Your task to perform on an android device: Open the calendar and show me this week's events? Image 0: 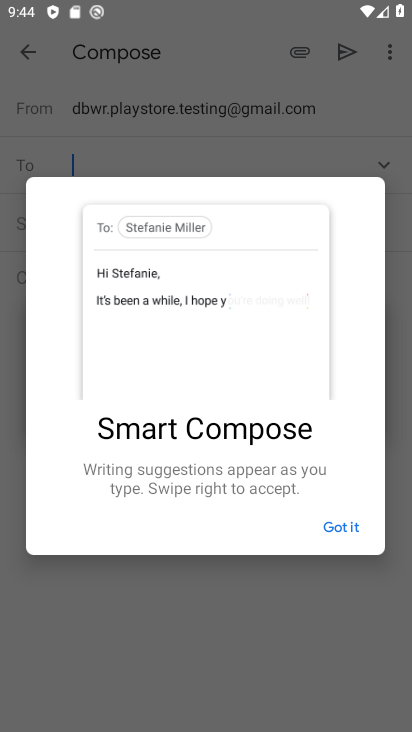
Step 0: press home button
Your task to perform on an android device: Open the calendar and show me this week's events? Image 1: 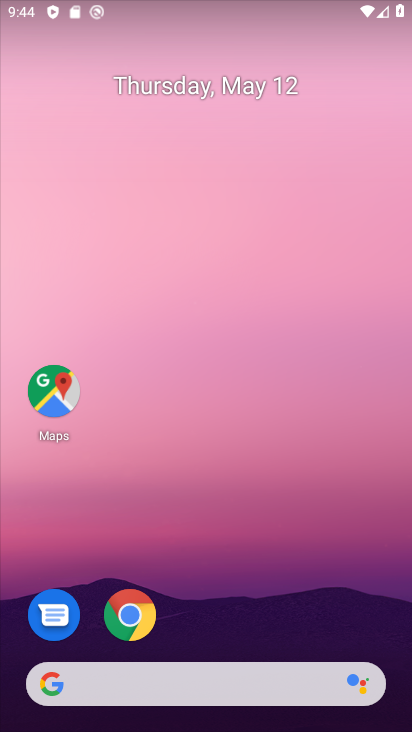
Step 1: drag from (223, 730) to (198, 72)
Your task to perform on an android device: Open the calendar and show me this week's events? Image 2: 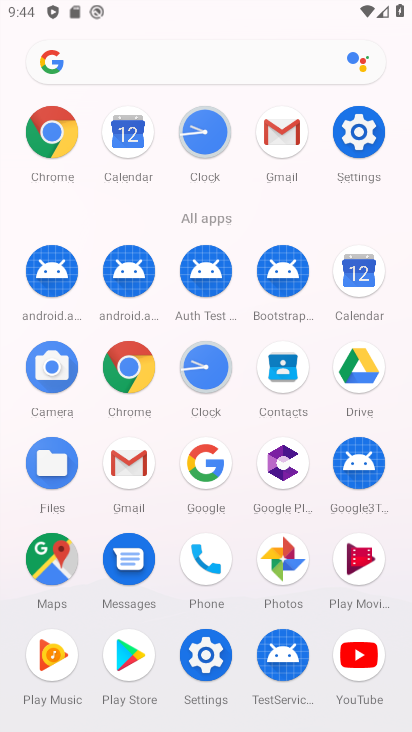
Step 2: click (363, 278)
Your task to perform on an android device: Open the calendar and show me this week's events? Image 3: 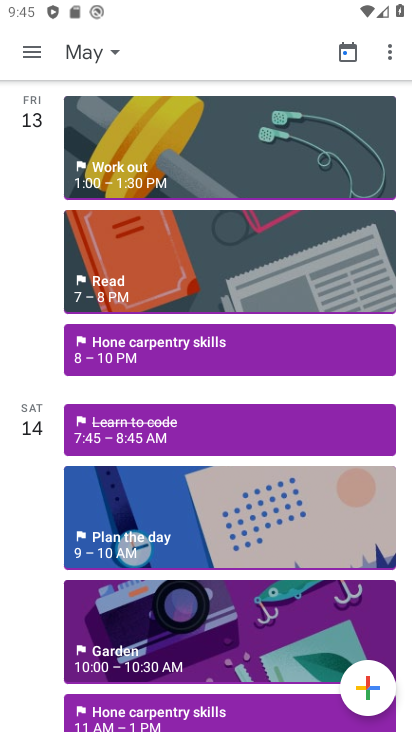
Step 3: click (34, 51)
Your task to perform on an android device: Open the calendar and show me this week's events? Image 4: 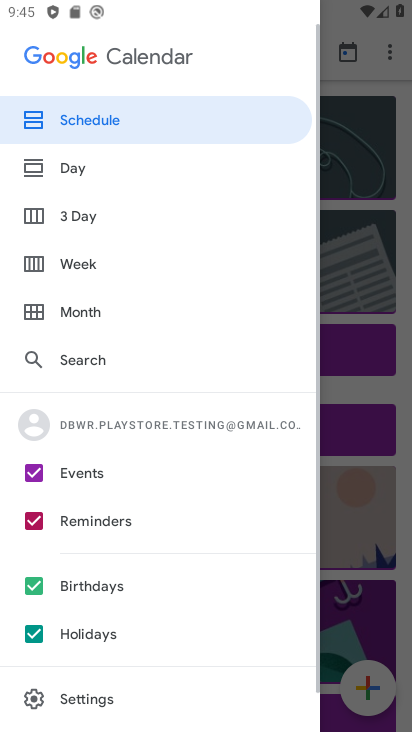
Step 4: click (31, 631)
Your task to perform on an android device: Open the calendar and show me this week's events? Image 5: 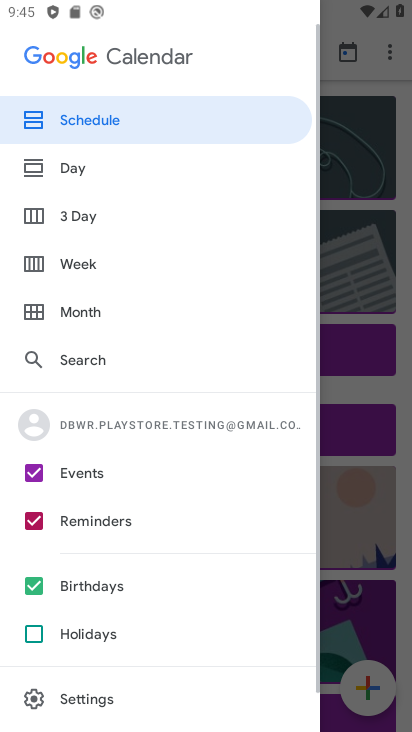
Step 5: click (34, 586)
Your task to perform on an android device: Open the calendar and show me this week's events? Image 6: 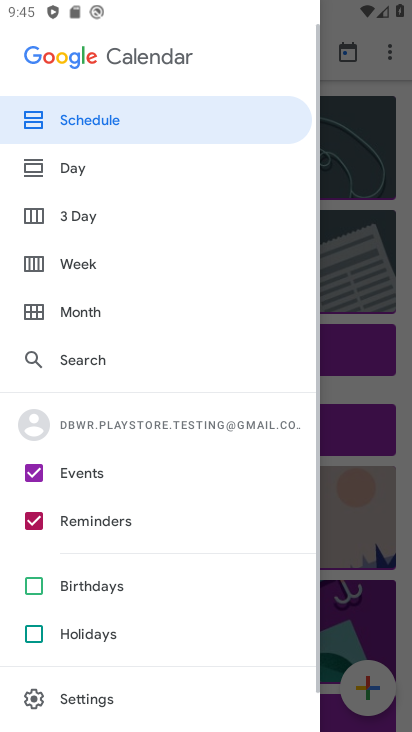
Step 6: click (26, 514)
Your task to perform on an android device: Open the calendar and show me this week's events? Image 7: 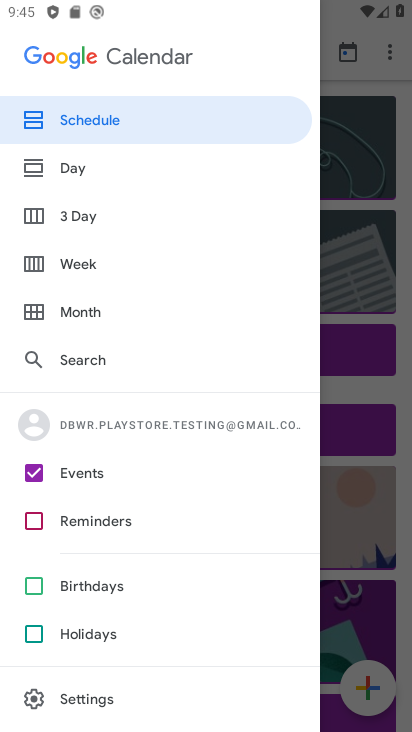
Step 7: click (88, 263)
Your task to perform on an android device: Open the calendar and show me this week's events? Image 8: 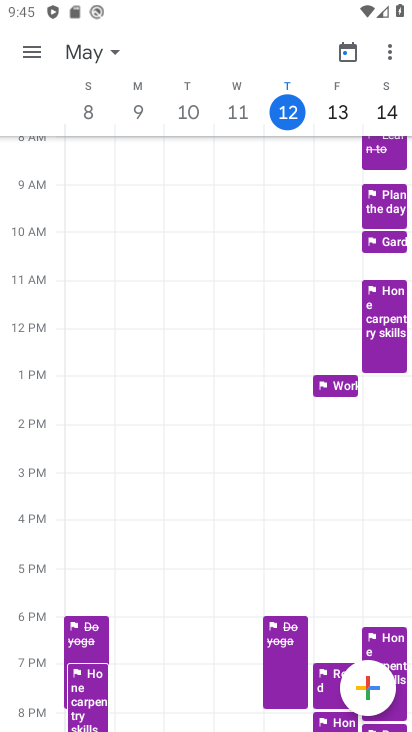
Step 8: task complete